Your task to perform on an android device: Show me productivity apps on the Play Store Image 0: 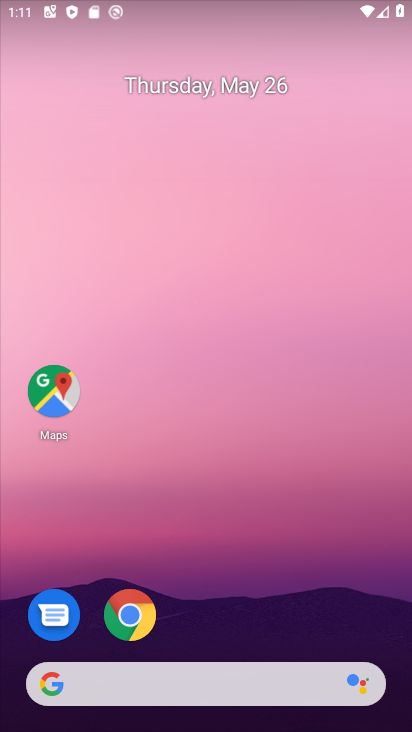
Step 0: drag from (196, 544) to (305, 121)
Your task to perform on an android device: Show me productivity apps on the Play Store Image 1: 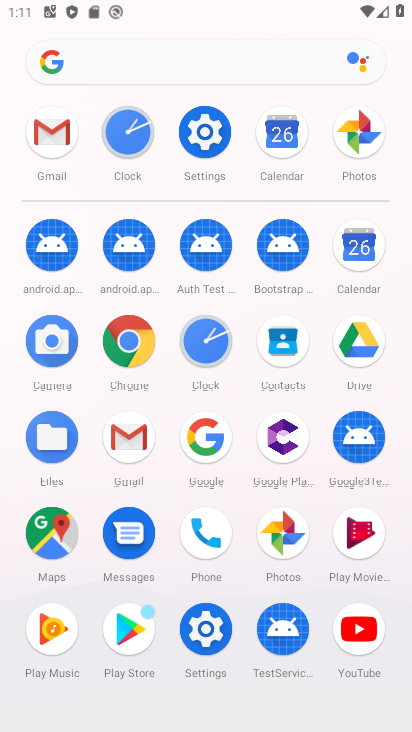
Step 1: click (122, 631)
Your task to perform on an android device: Show me productivity apps on the Play Store Image 2: 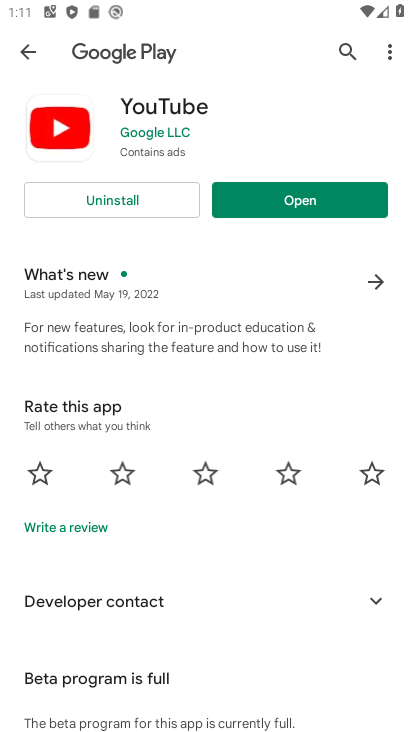
Step 2: click (32, 43)
Your task to perform on an android device: Show me productivity apps on the Play Store Image 3: 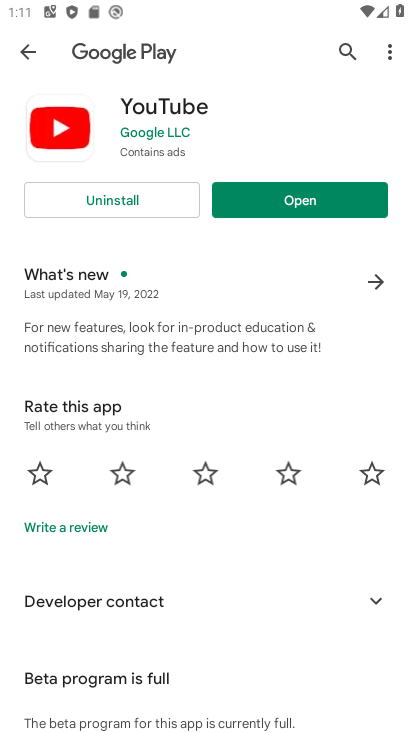
Step 3: click (32, 43)
Your task to perform on an android device: Show me productivity apps on the Play Store Image 4: 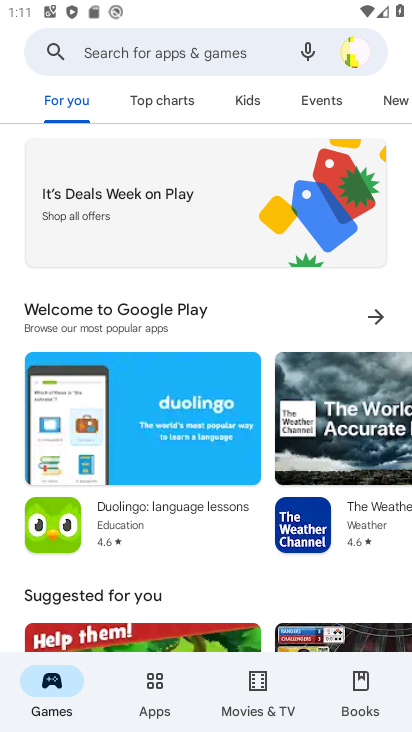
Step 4: click (154, 705)
Your task to perform on an android device: Show me productivity apps on the Play Store Image 5: 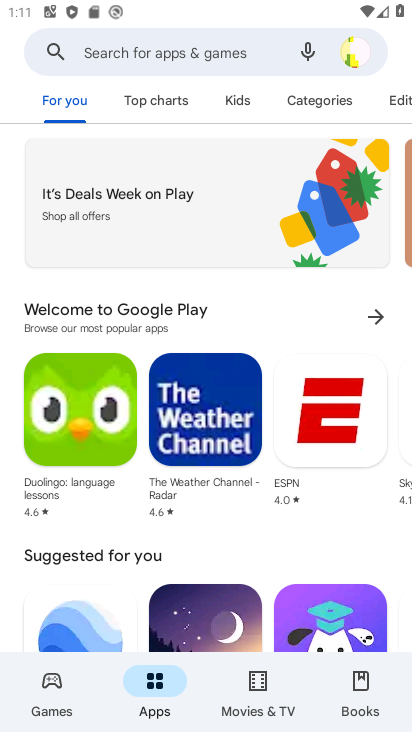
Step 5: drag from (189, 580) to (278, 68)
Your task to perform on an android device: Show me productivity apps on the Play Store Image 6: 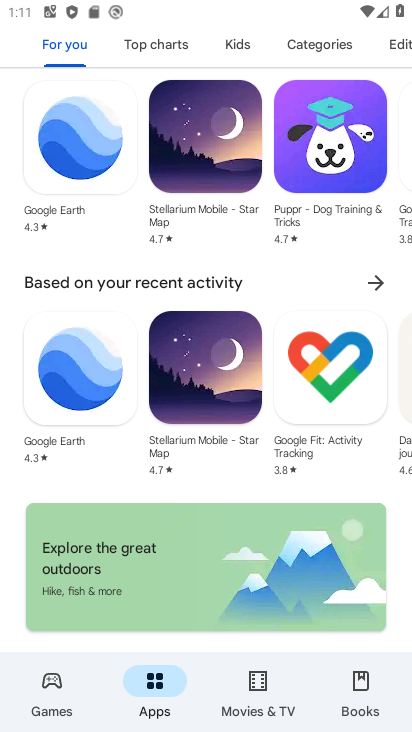
Step 6: drag from (164, 532) to (309, 74)
Your task to perform on an android device: Show me productivity apps on the Play Store Image 7: 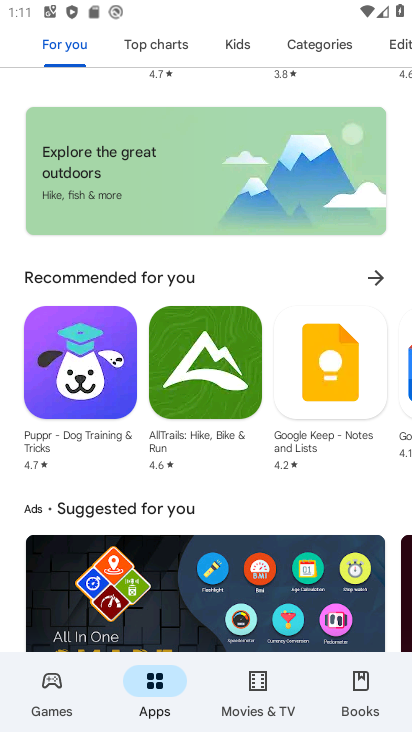
Step 7: drag from (180, 619) to (290, 114)
Your task to perform on an android device: Show me productivity apps on the Play Store Image 8: 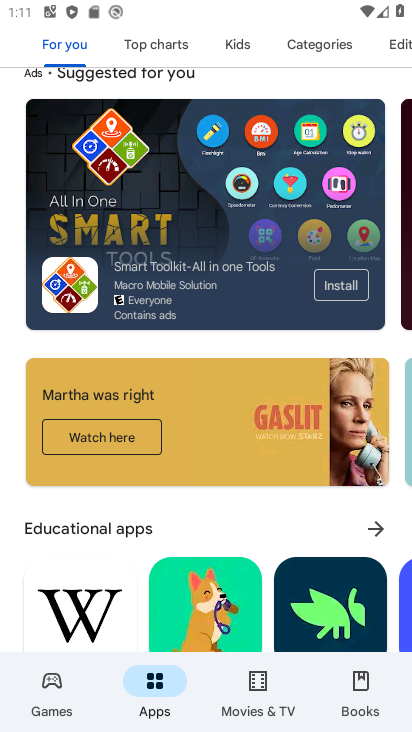
Step 8: drag from (190, 545) to (224, 212)
Your task to perform on an android device: Show me productivity apps on the Play Store Image 9: 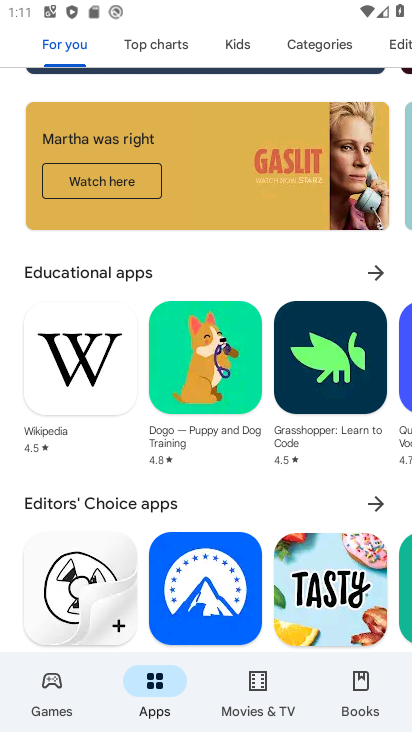
Step 9: drag from (159, 653) to (224, 168)
Your task to perform on an android device: Show me productivity apps on the Play Store Image 10: 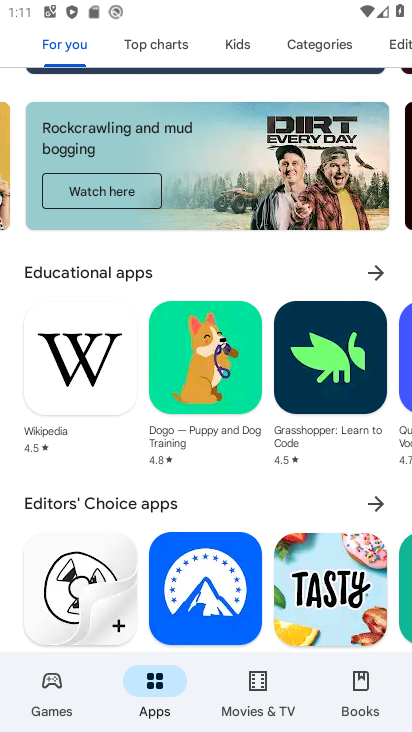
Step 10: drag from (128, 569) to (205, 165)
Your task to perform on an android device: Show me productivity apps on the Play Store Image 11: 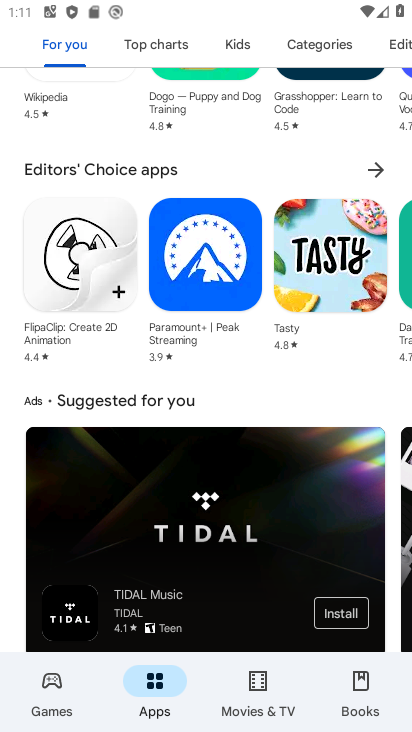
Step 11: drag from (117, 567) to (246, 104)
Your task to perform on an android device: Show me productivity apps on the Play Store Image 12: 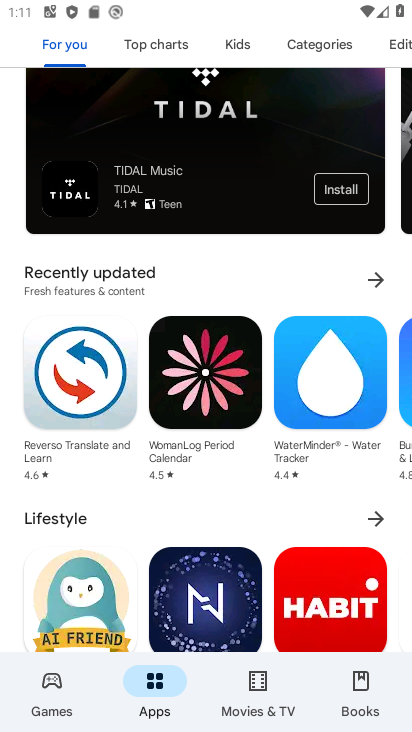
Step 12: drag from (156, 624) to (271, 45)
Your task to perform on an android device: Show me productivity apps on the Play Store Image 13: 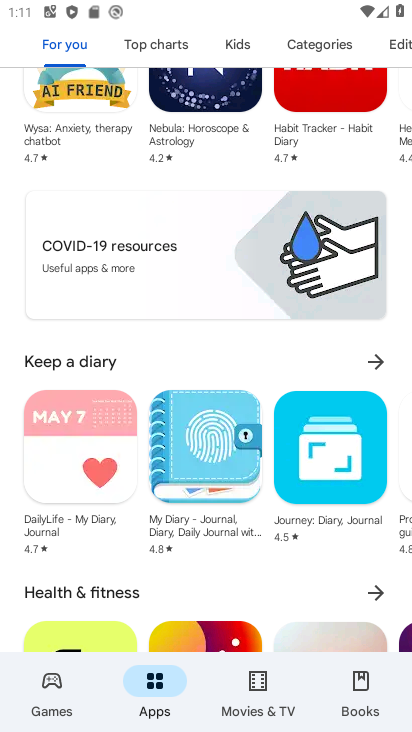
Step 13: drag from (172, 579) to (235, 30)
Your task to perform on an android device: Show me productivity apps on the Play Store Image 14: 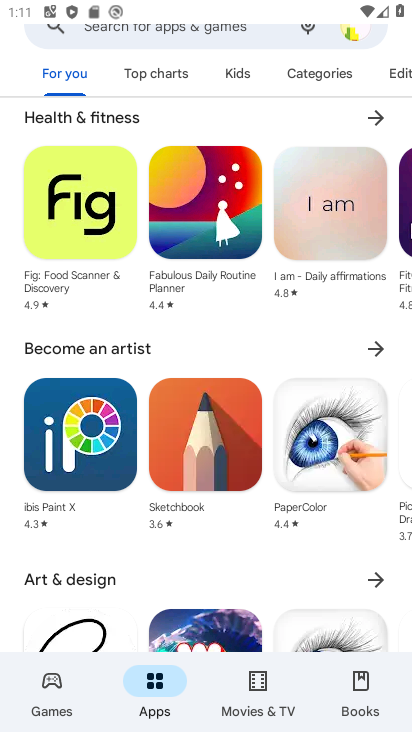
Step 14: drag from (133, 605) to (270, 57)
Your task to perform on an android device: Show me productivity apps on the Play Store Image 15: 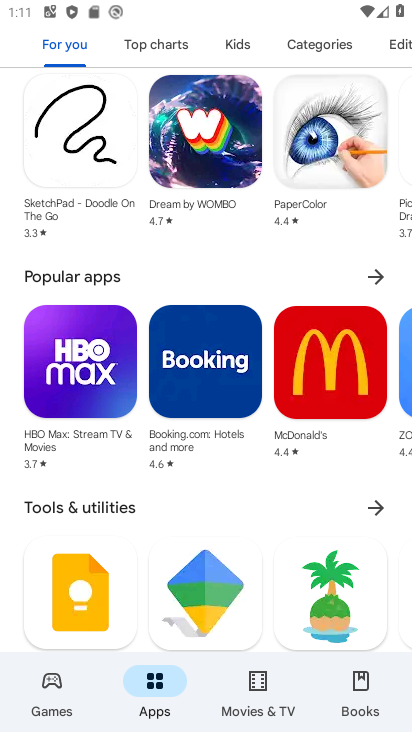
Step 15: drag from (169, 595) to (253, 260)
Your task to perform on an android device: Show me productivity apps on the Play Store Image 16: 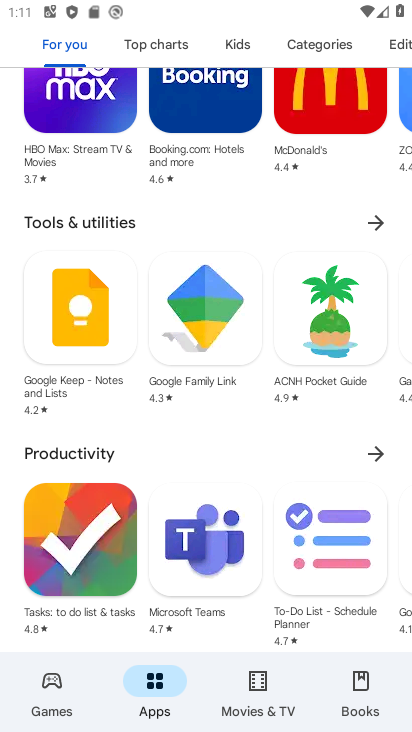
Step 16: click (379, 456)
Your task to perform on an android device: Show me productivity apps on the Play Store Image 17: 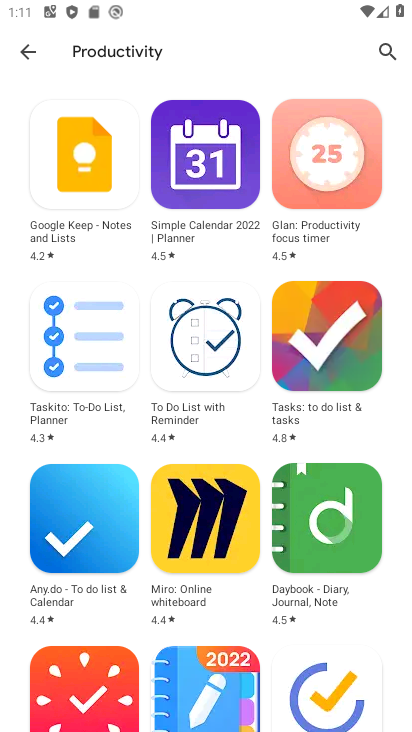
Step 17: task complete